Your task to perform on an android device: check battery use Image 0: 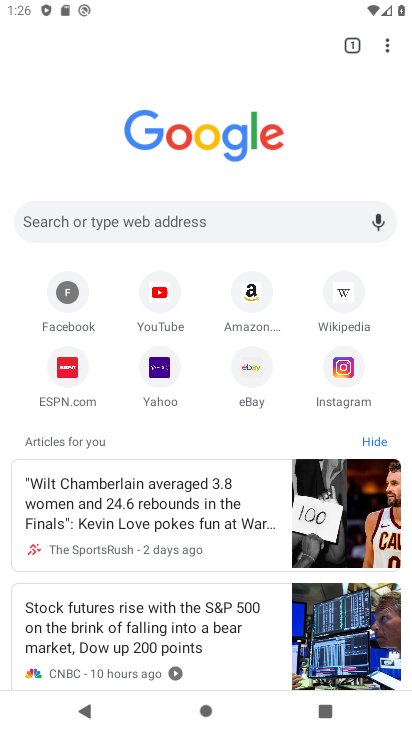
Step 0: press home button
Your task to perform on an android device: check battery use Image 1: 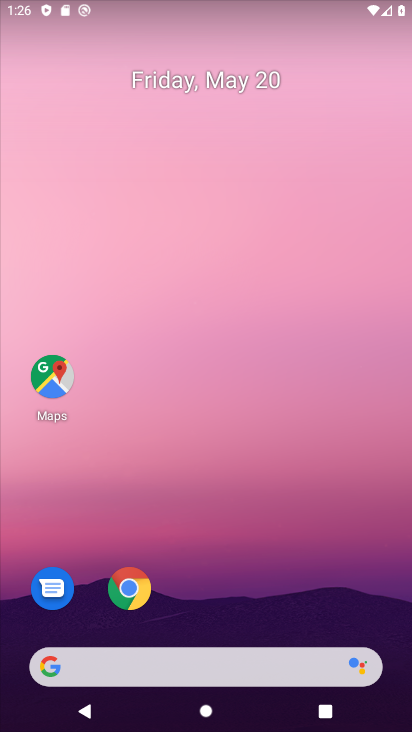
Step 1: drag from (195, 538) to (191, 154)
Your task to perform on an android device: check battery use Image 2: 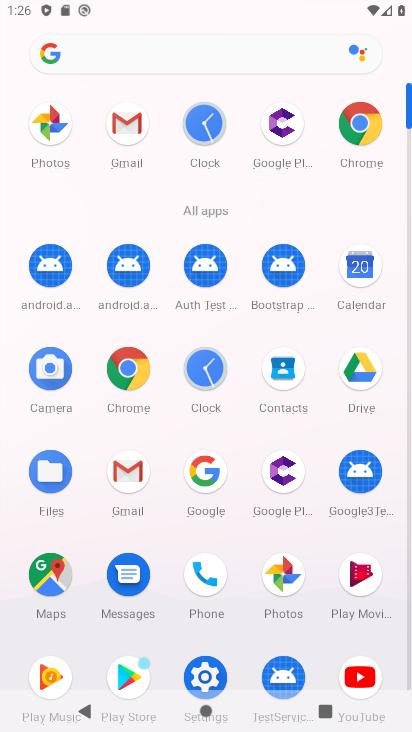
Step 2: click (206, 674)
Your task to perform on an android device: check battery use Image 3: 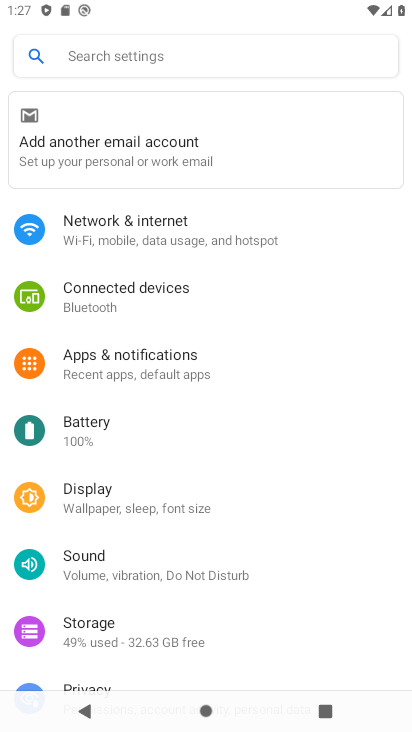
Step 3: click (108, 429)
Your task to perform on an android device: check battery use Image 4: 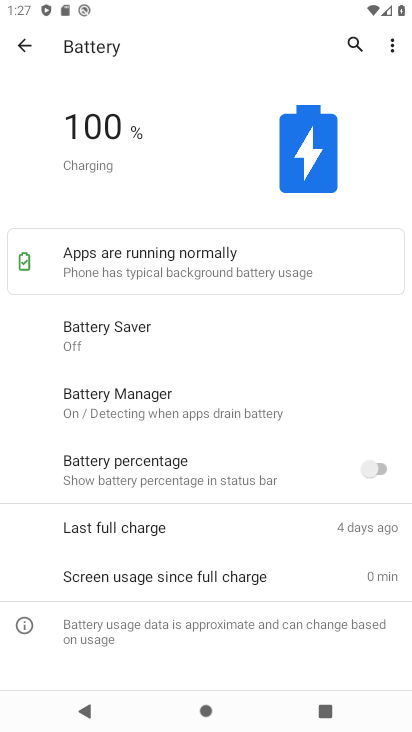
Step 4: click (393, 51)
Your task to perform on an android device: check battery use Image 5: 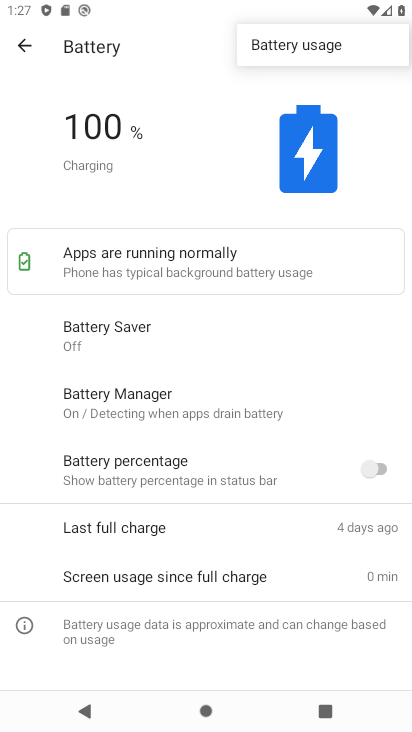
Step 5: click (269, 55)
Your task to perform on an android device: check battery use Image 6: 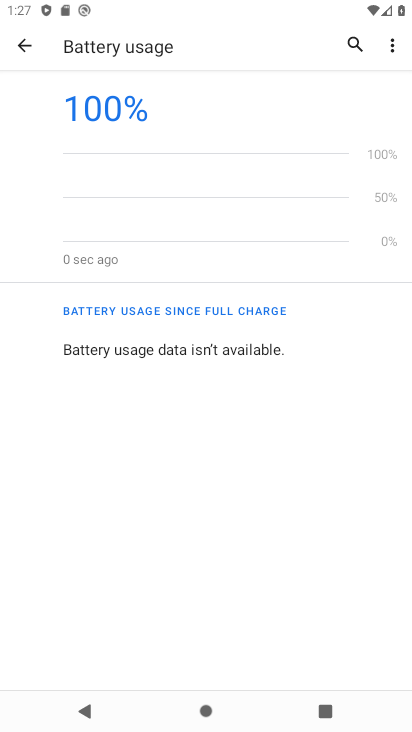
Step 6: task complete